Your task to perform on an android device: set default search engine in the chrome app Image 0: 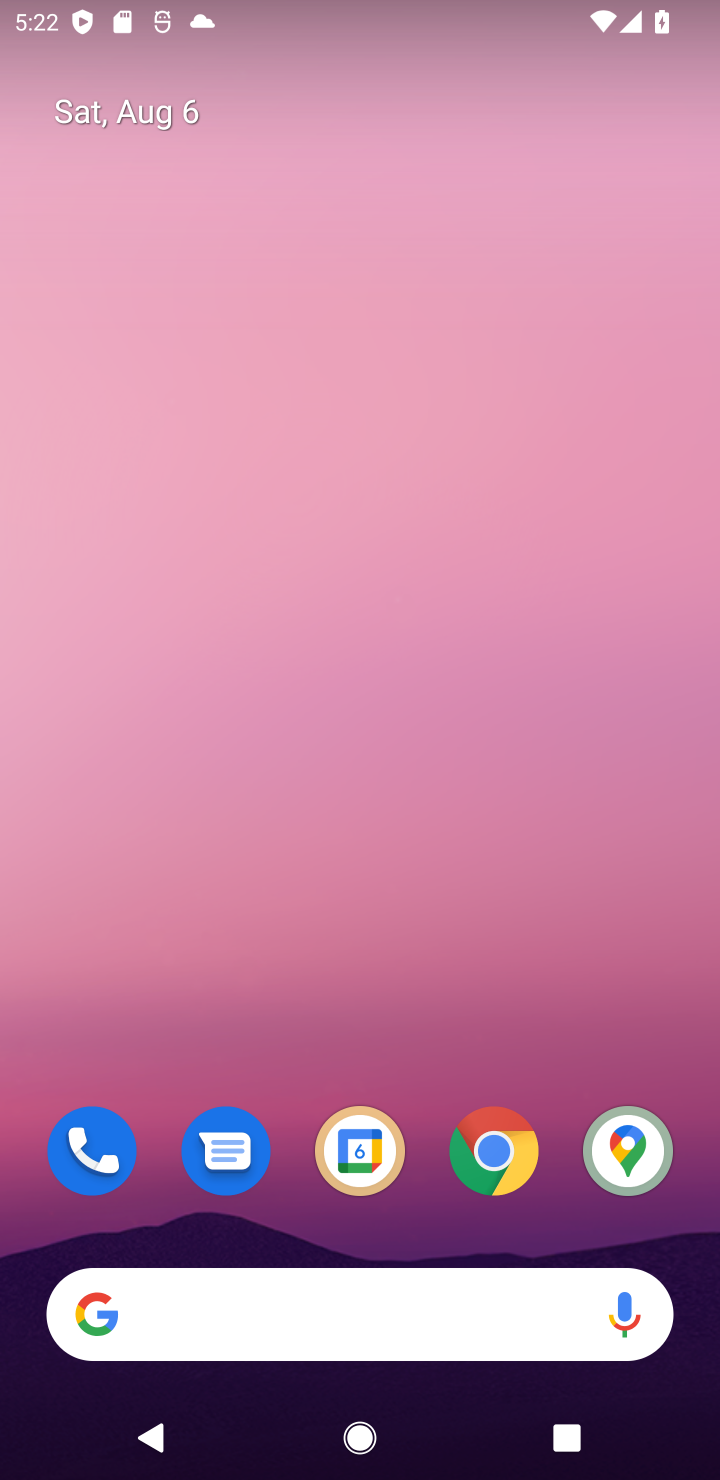
Step 0: click (484, 1167)
Your task to perform on an android device: set default search engine in the chrome app Image 1: 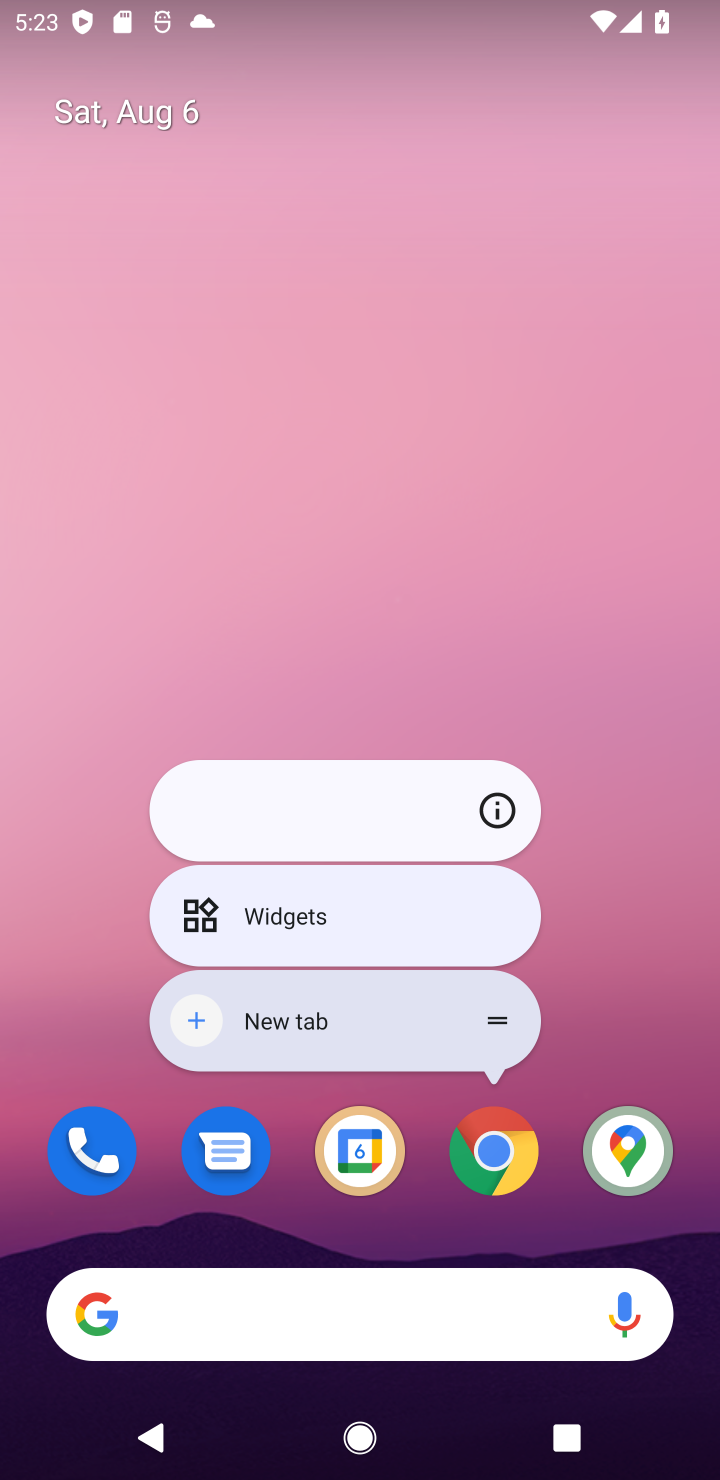
Step 1: click (511, 1150)
Your task to perform on an android device: set default search engine in the chrome app Image 2: 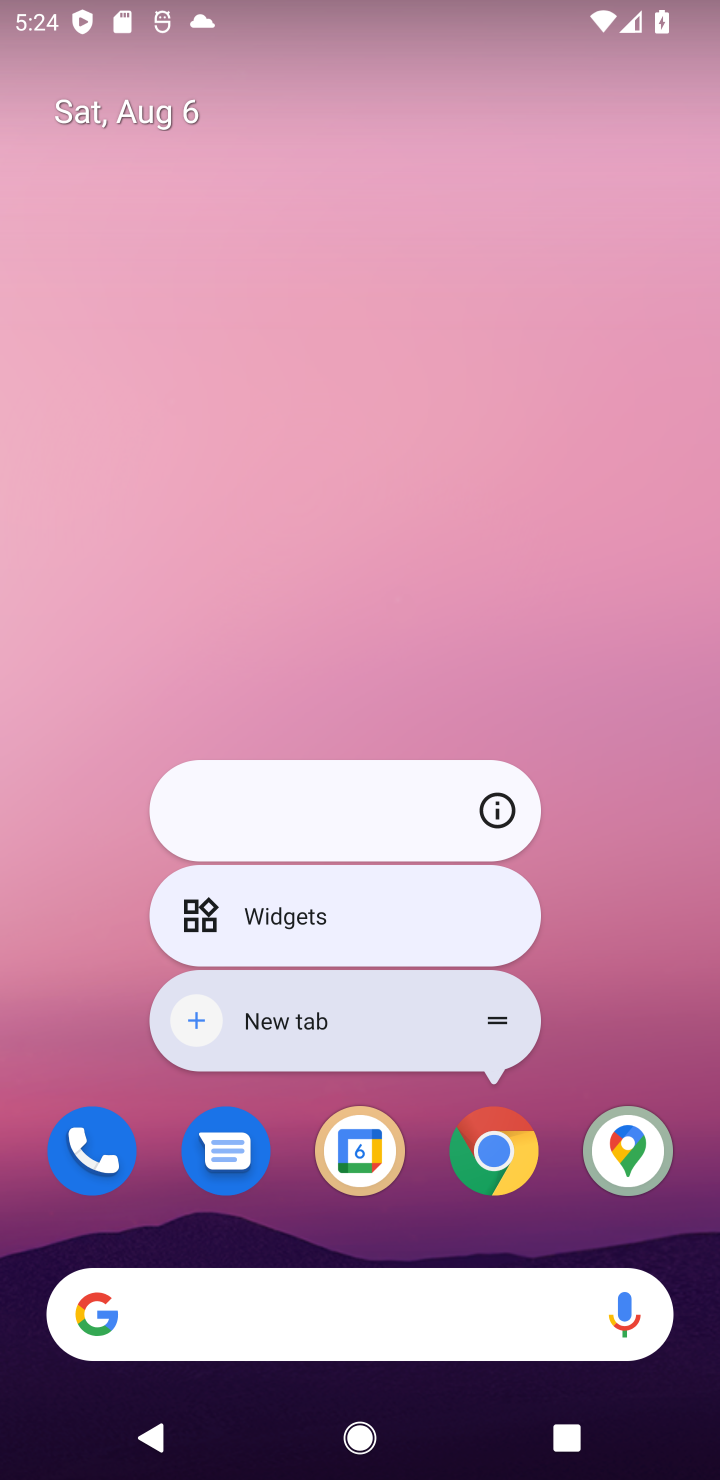
Step 2: click (471, 1151)
Your task to perform on an android device: set default search engine in the chrome app Image 3: 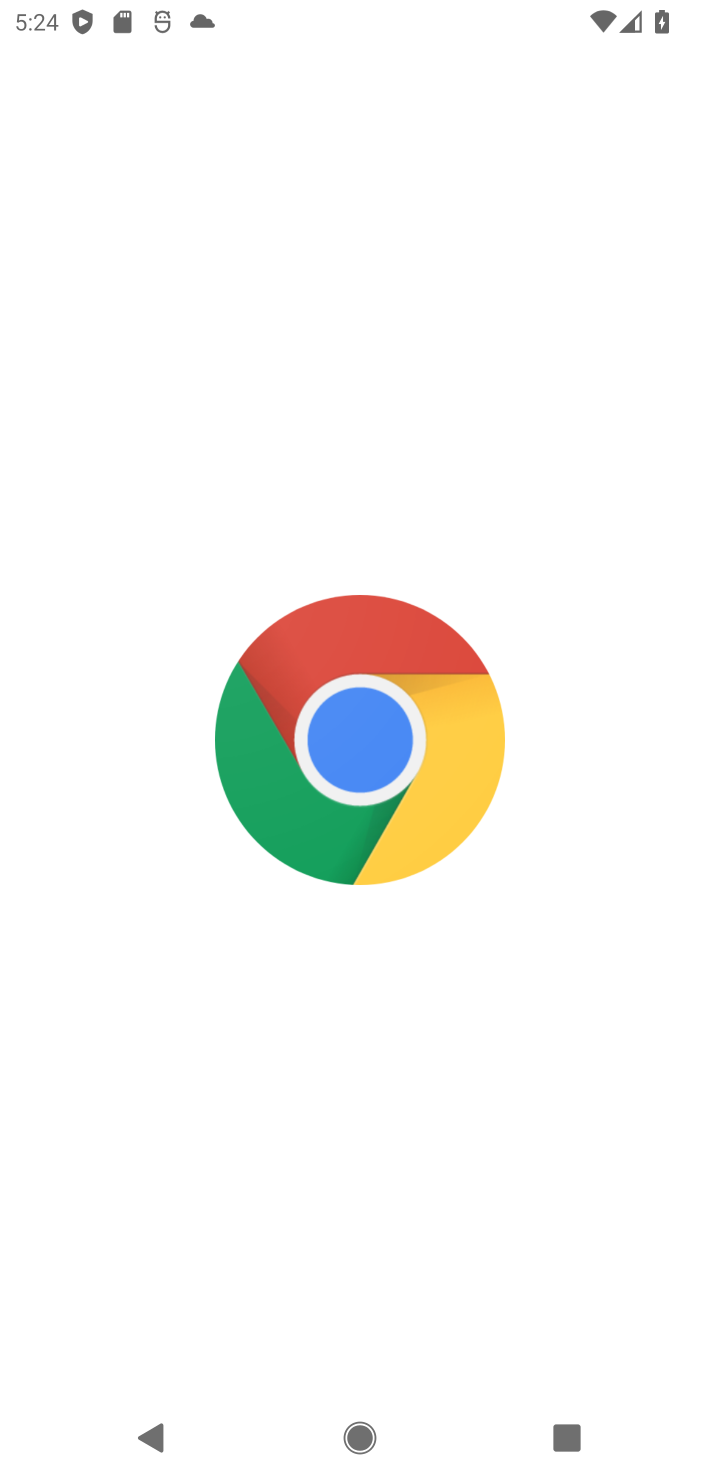
Step 3: click (503, 1188)
Your task to perform on an android device: set default search engine in the chrome app Image 4: 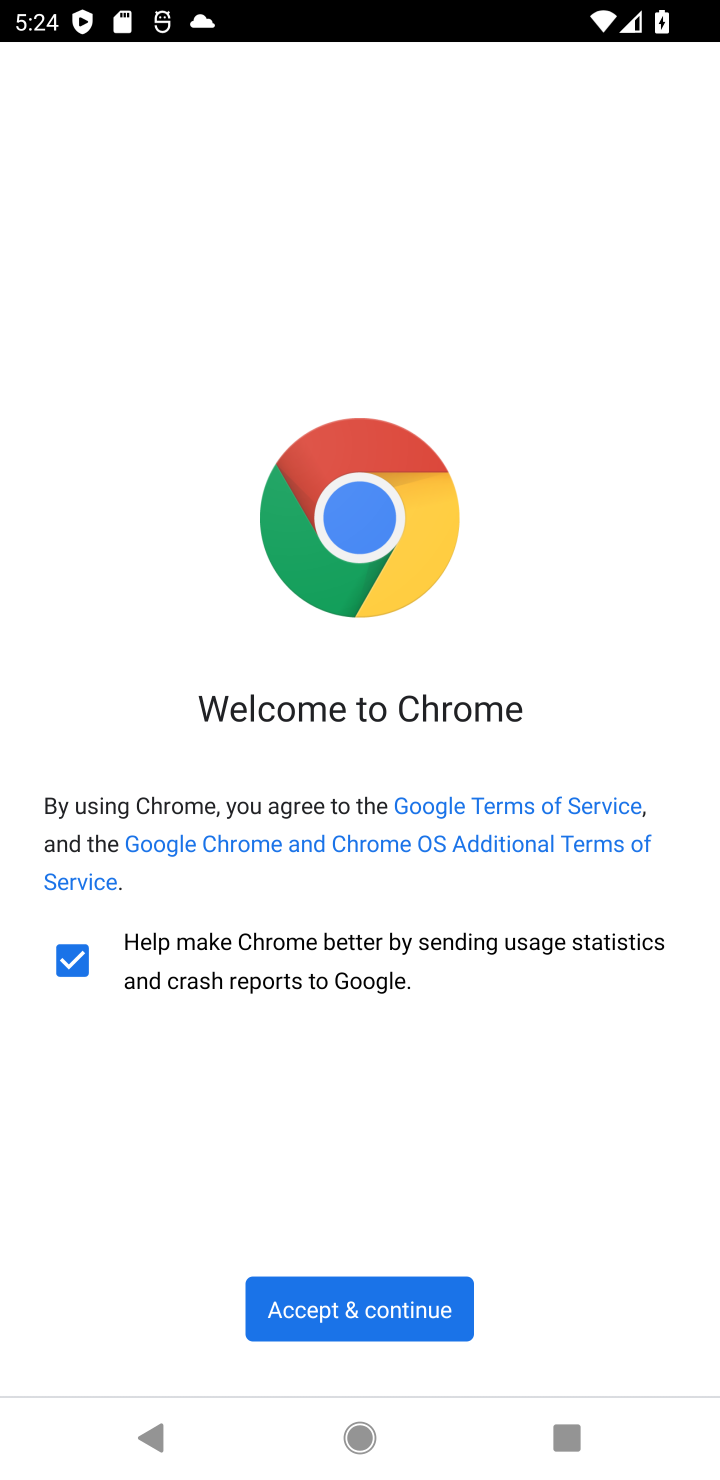
Step 4: click (395, 1308)
Your task to perform on an android device: set default search engine in the chrome app Image 5: 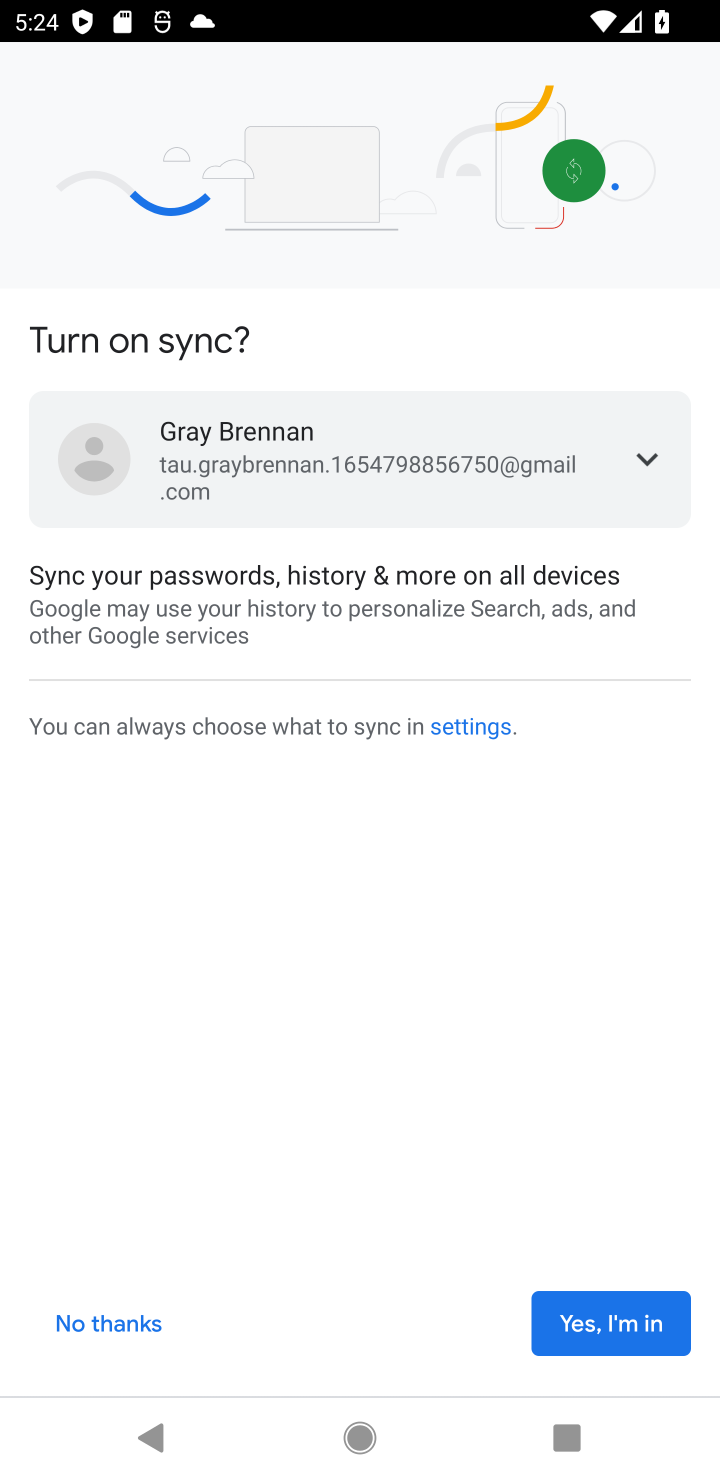
Step 5: click (563, 1332)
Your task to perform on an android device: set default search engine in the chrome app Image 6: 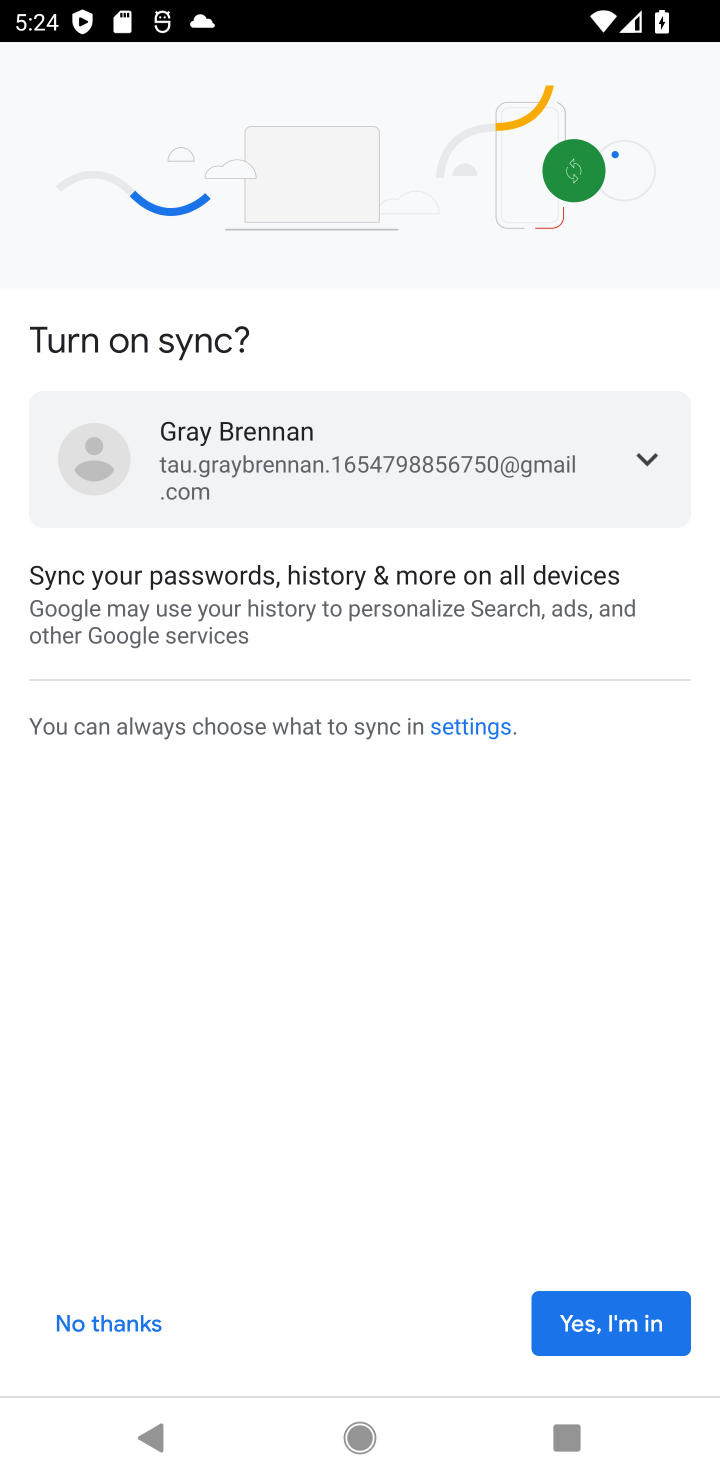
Step 6: click (637, 1339)
Your task to perform on an android device: set default search engine in the chrome app Image 7: 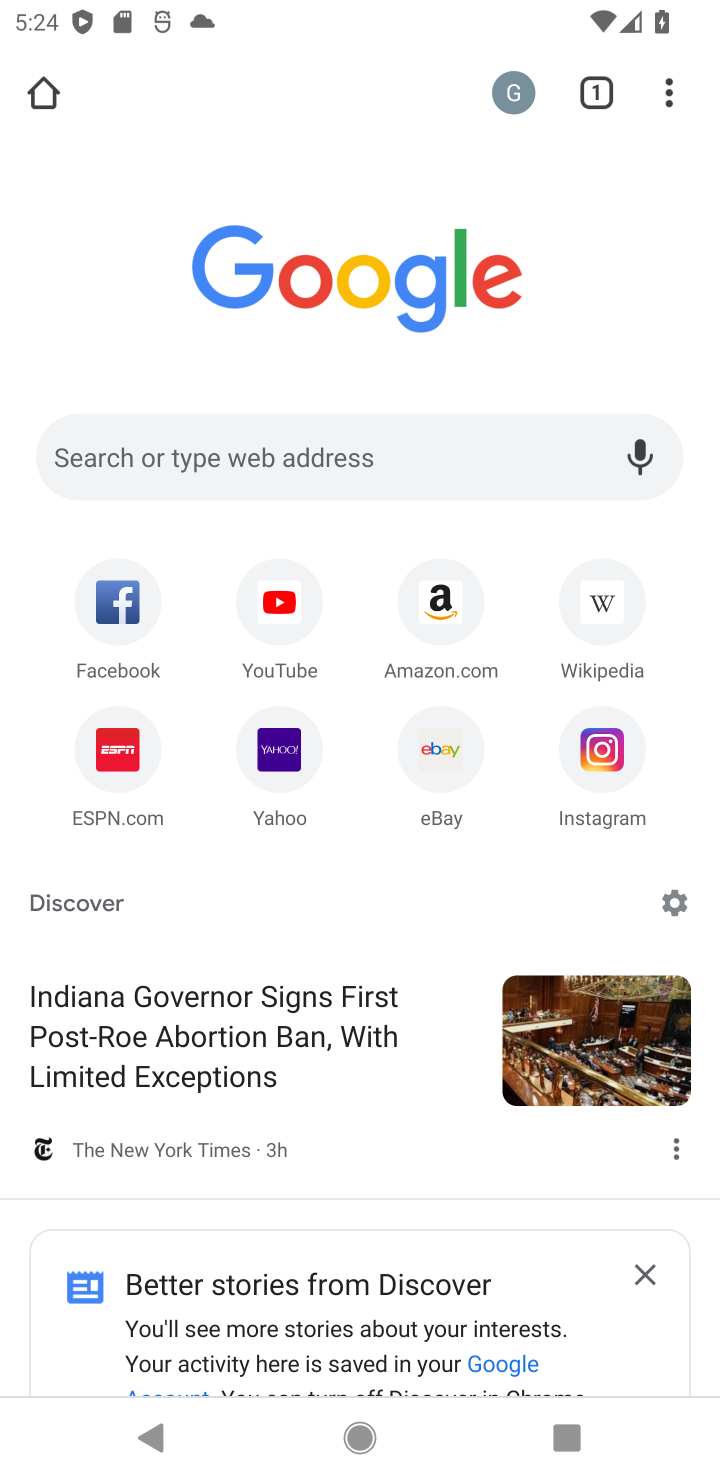
Step 7: click (658, 90)
Your task to perform on an android device: set default search engine in the chrome app Image 8: 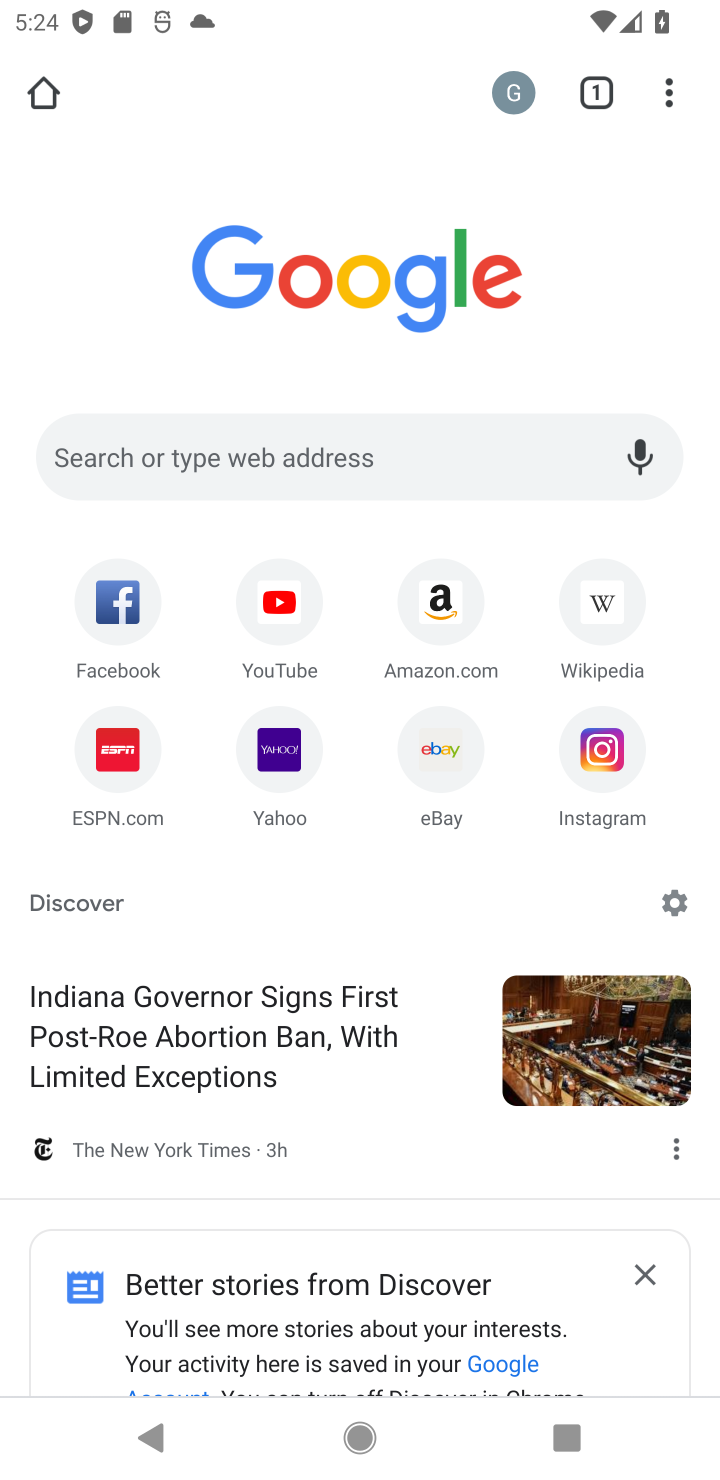
Step 8: click (686, 82)
Your task to perform on an android device: set default search engine in the chrome app Image 9: 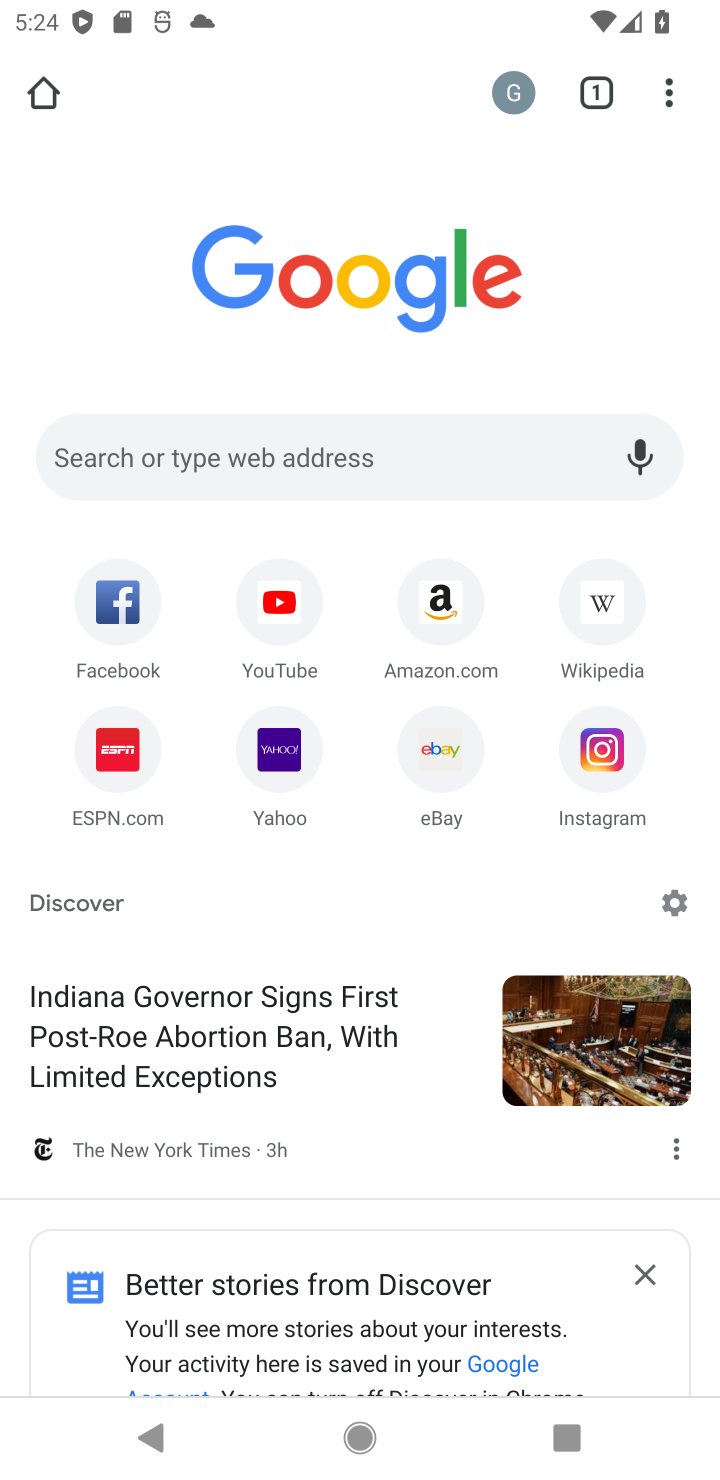
Step 9: click (661, 94)
Your task to perform on an android device: set default search engine in the chrome app Image 10: 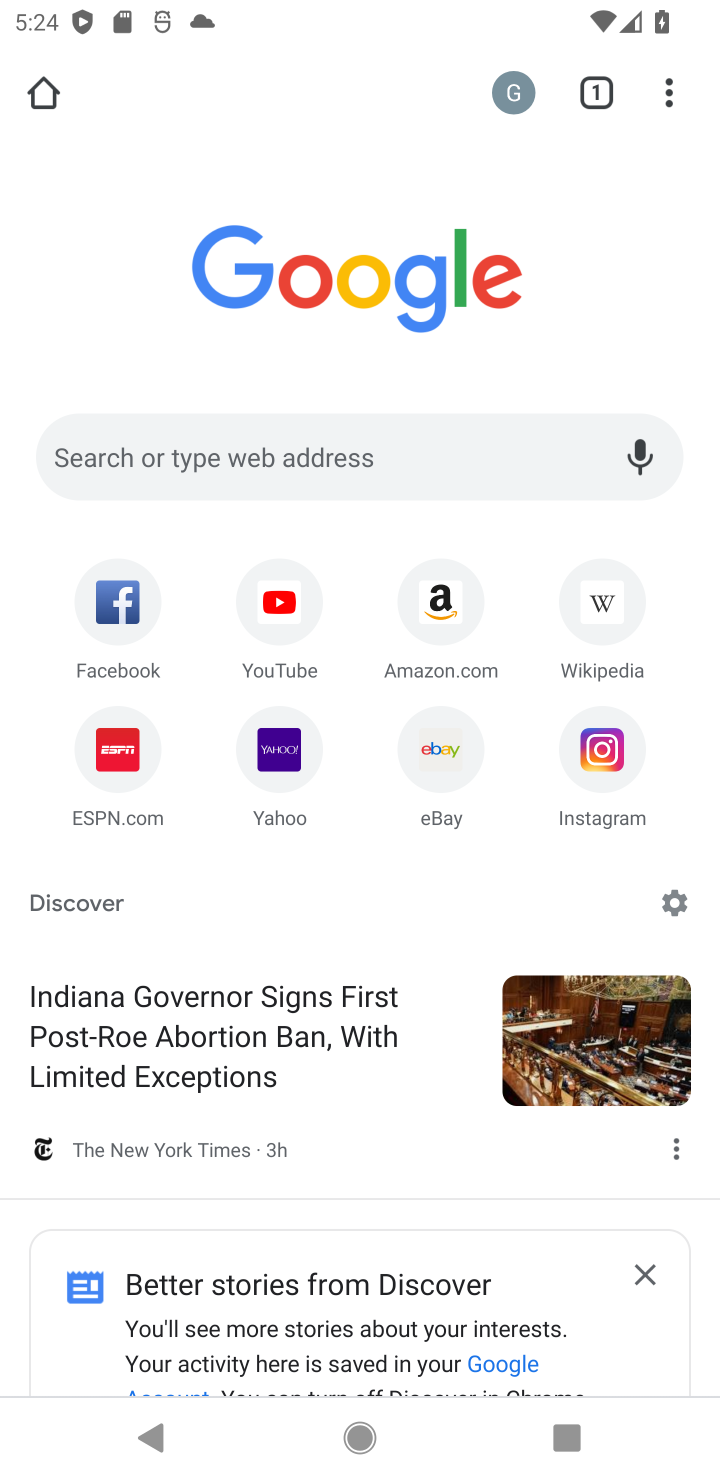
Step 10: click (661, 94)
Your task to perform on an android device: set default search engine in the chrome app Image 11: 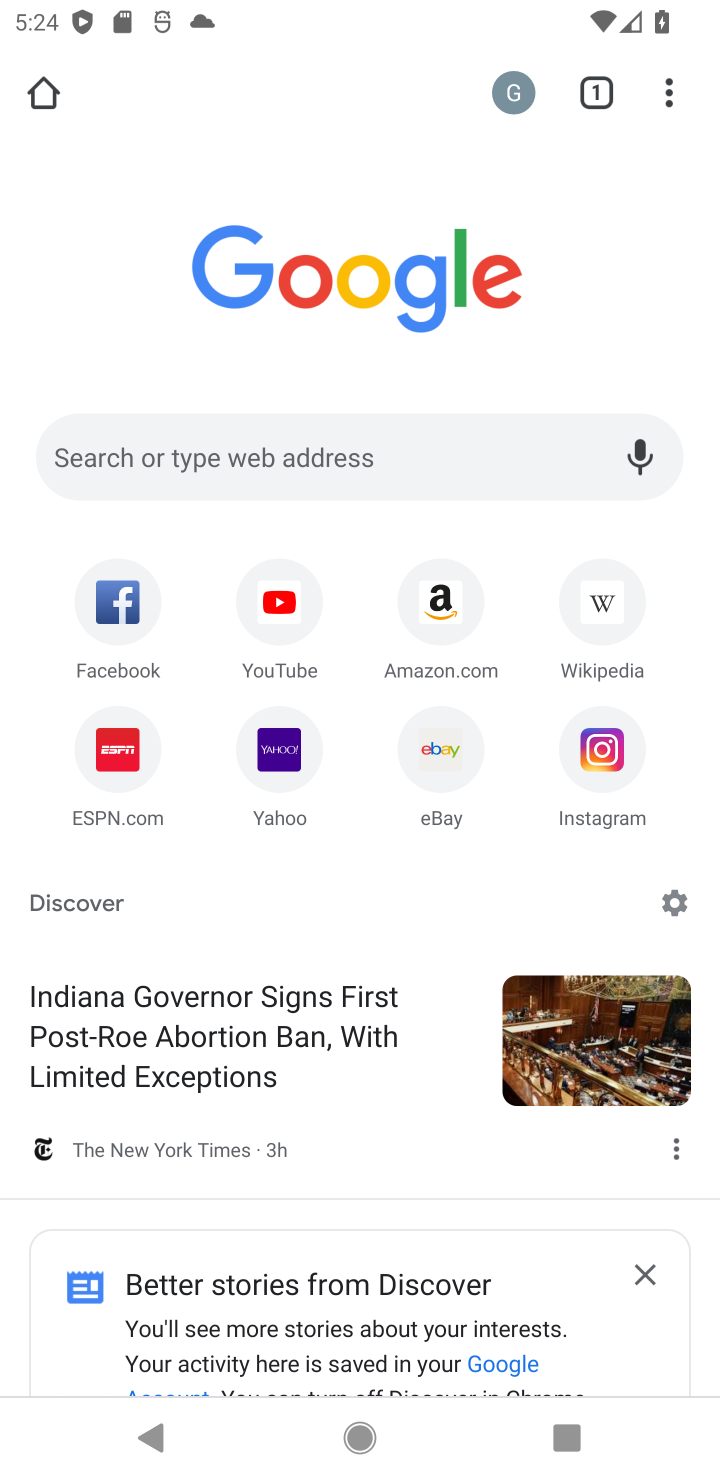
Step 11: click (671, 96)
Your task to perform on an android device: set default search engine in the chrome app Image 12: 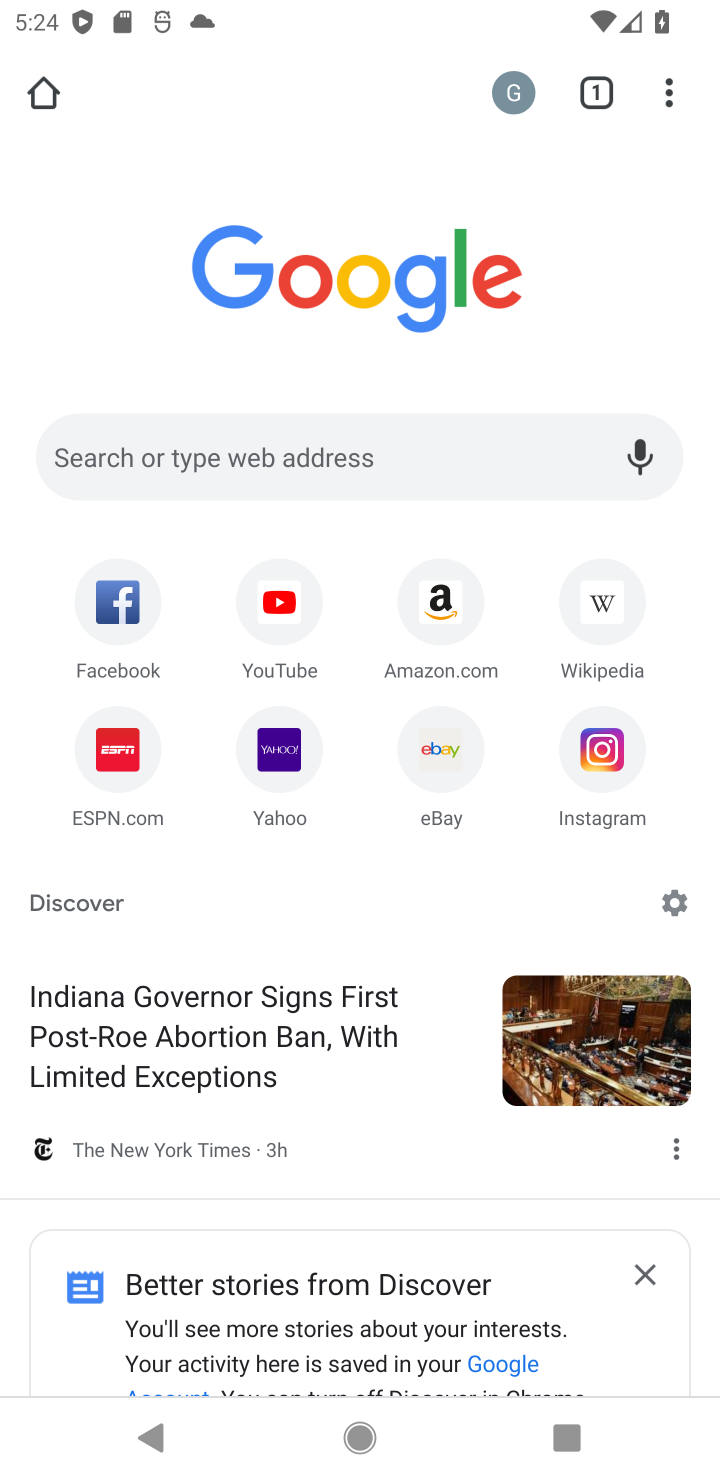
Step 12: click (666, 77)
Your task to perform on an android device: set default search engine in the chrome app Image 13: 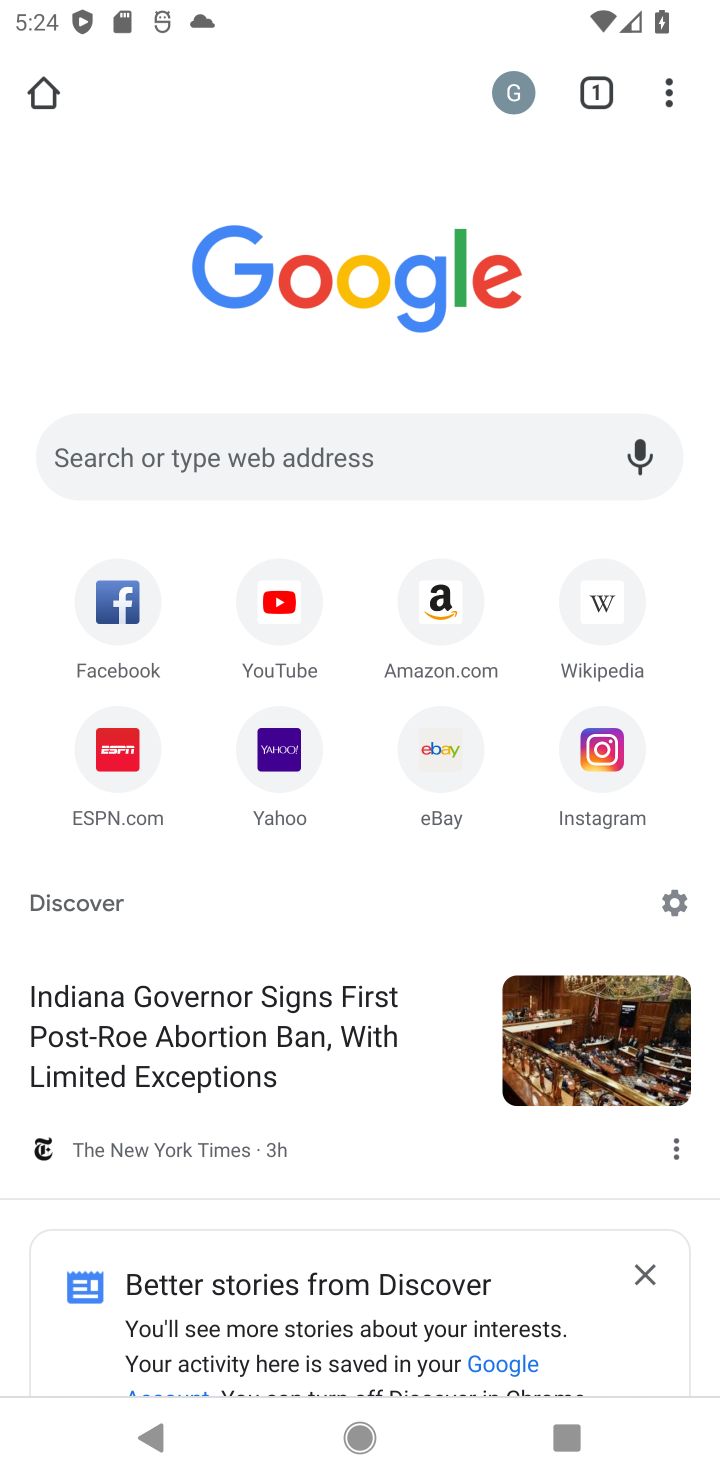
Step 13: click (664, 78)
Your task to perform on an android device: set default search engine in the chrome app Image 14: 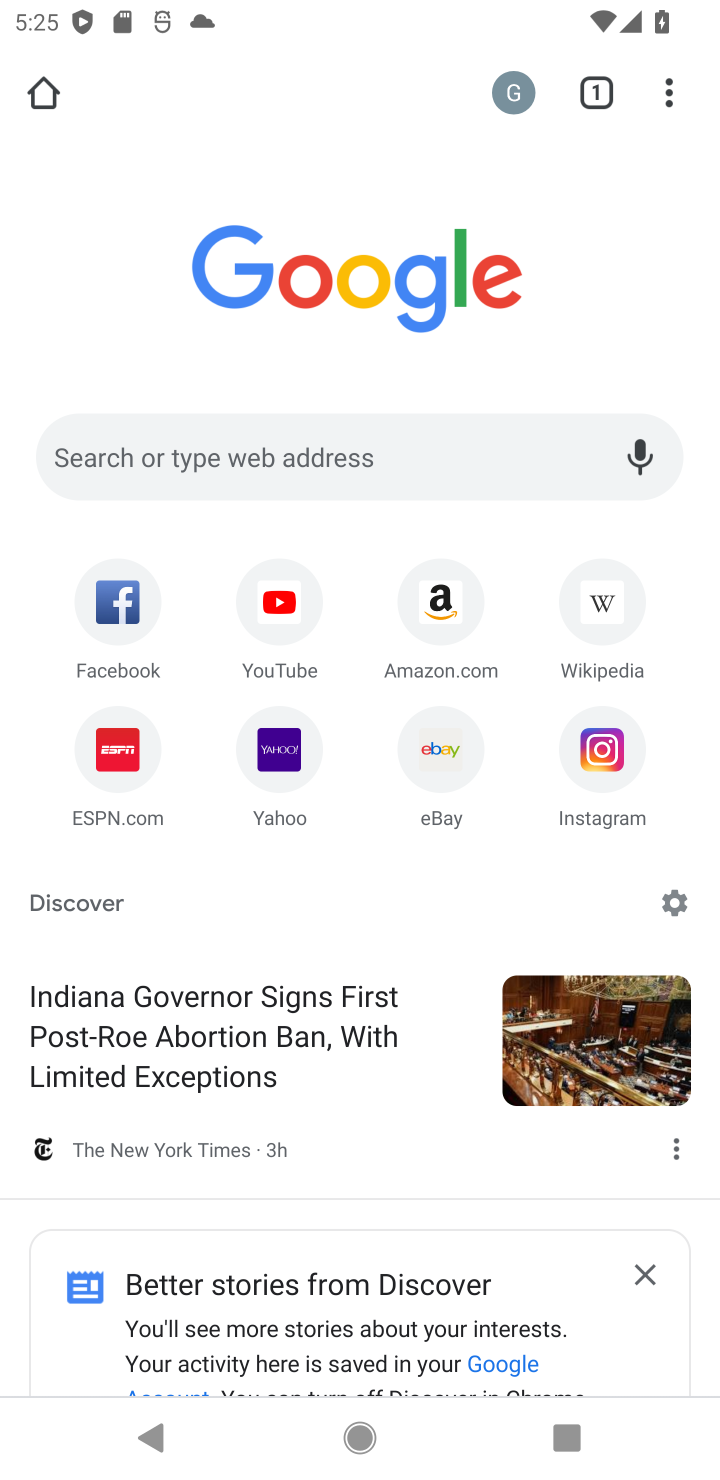
Step 14: click (665, 81)
Your task to perform on an android device: set default search engine in the chrome app Image 15: 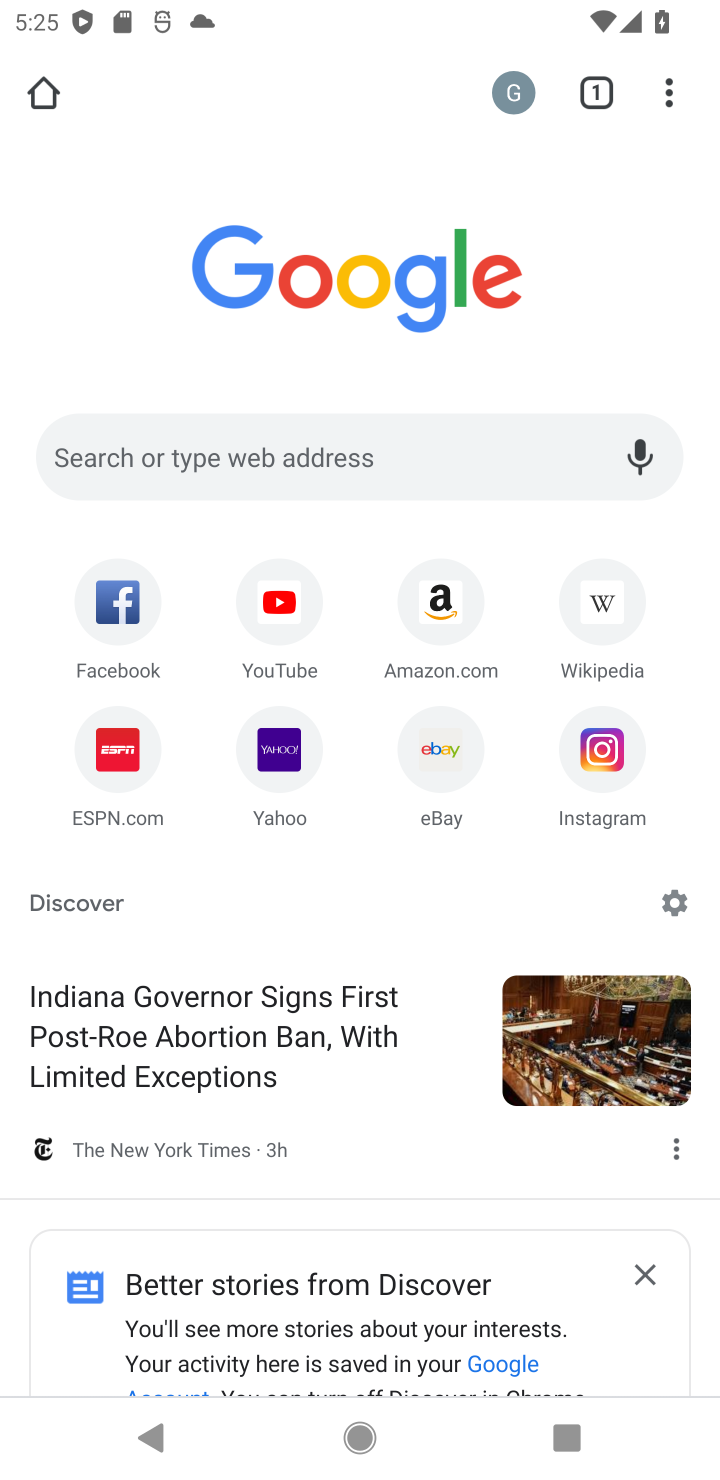
Step 15: click (662, 90)
Your task to perform on an android device: set default search engine in the chrome app Image 16: 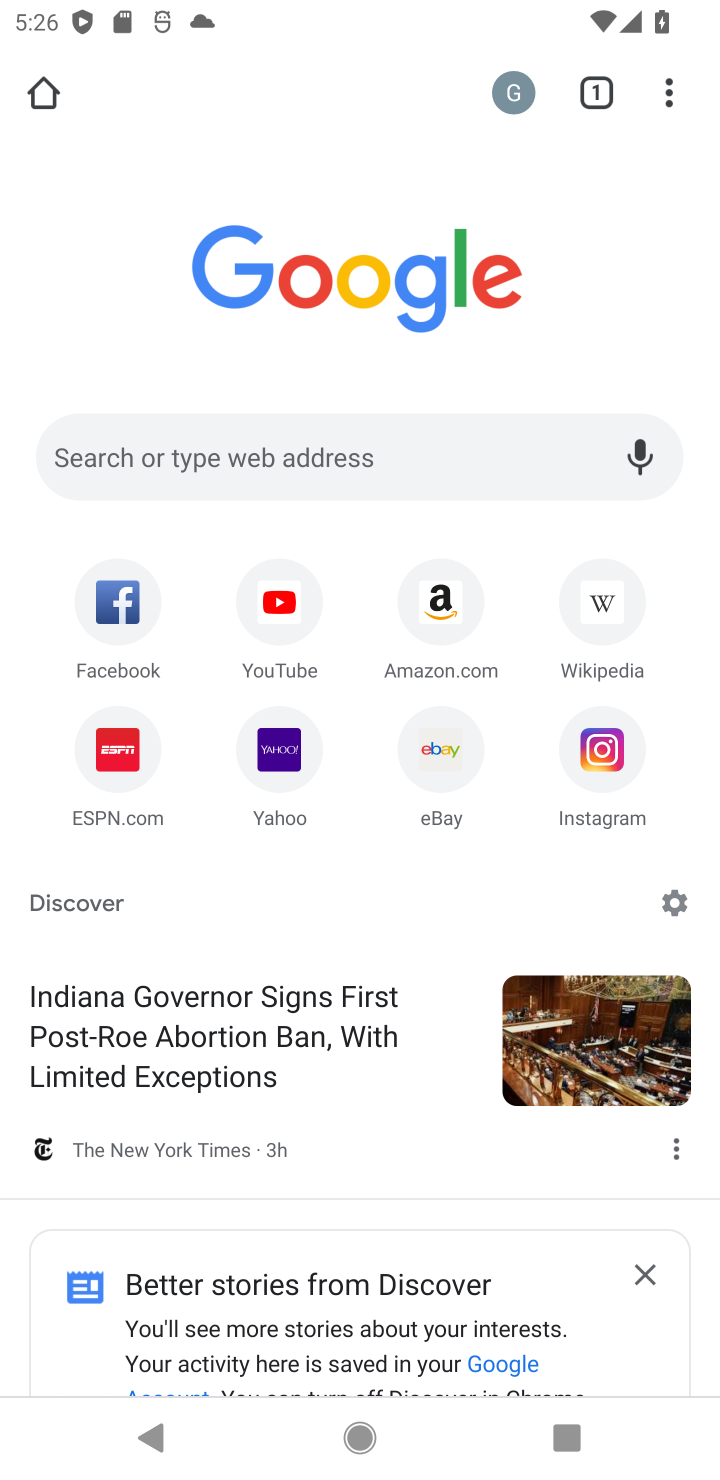
Step 16: click (686, 66)
Your task to perform on an android device: set default search engine in the chrome app Image 17: 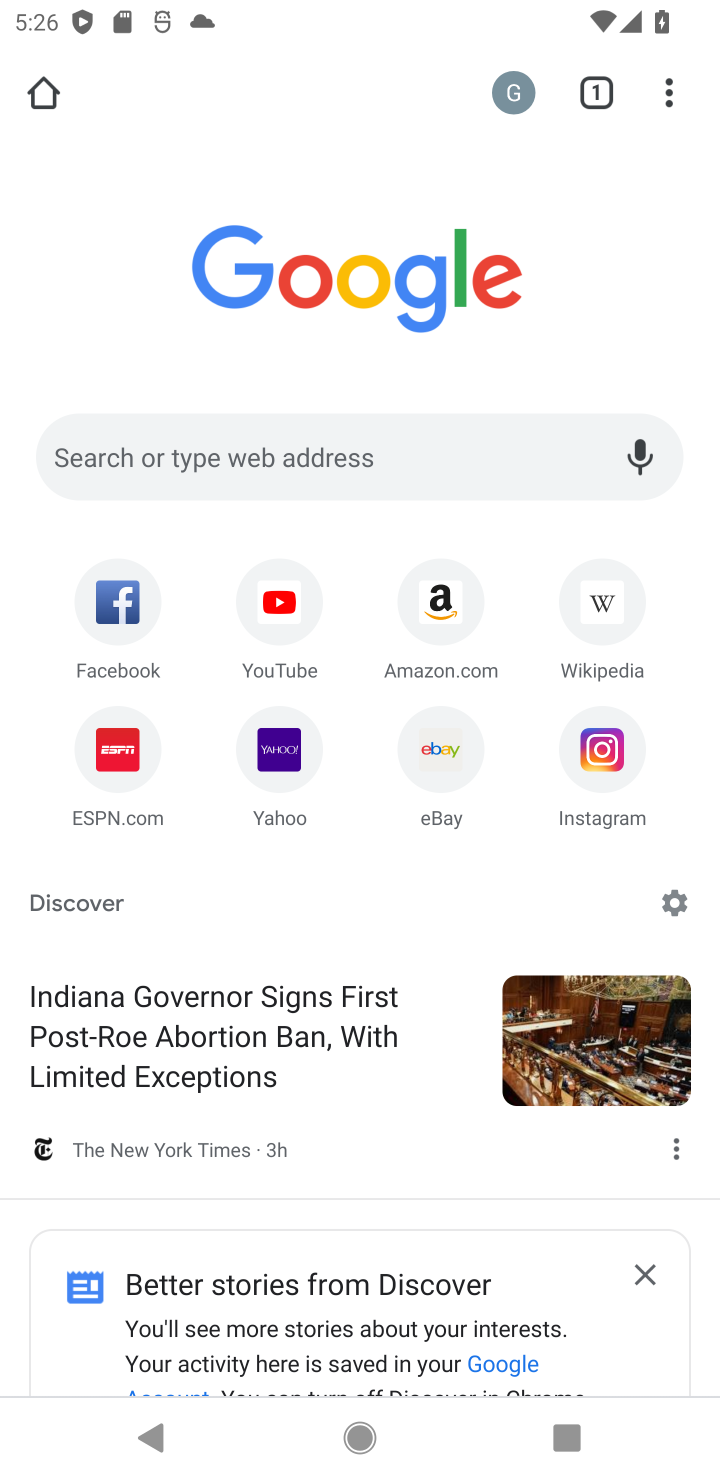
Step 17: click (674, 69)
Your task to perform on an android device: set default search engine in the chrome app Image 18: 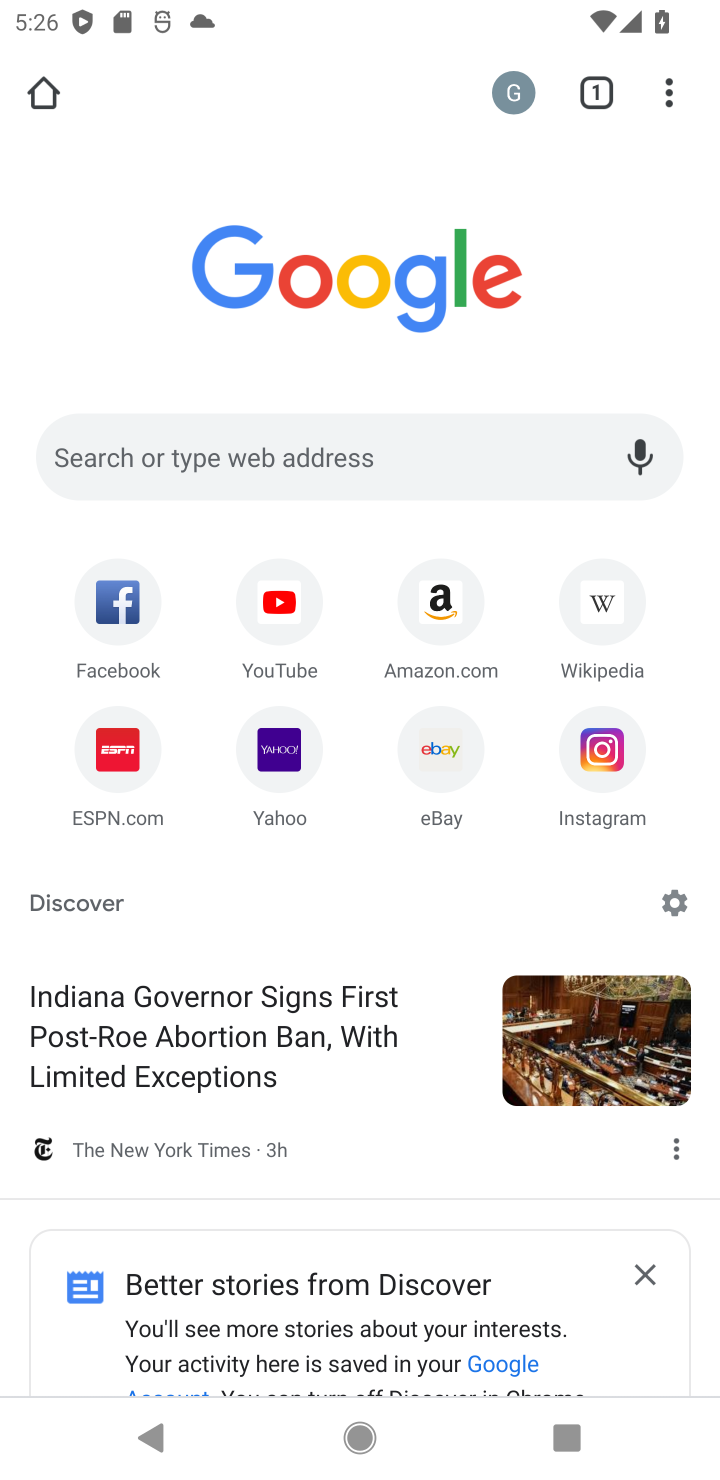
Step 18: click (674, 69)
Your task to perform on an android device: set default search engine in the chrome app Image 19: 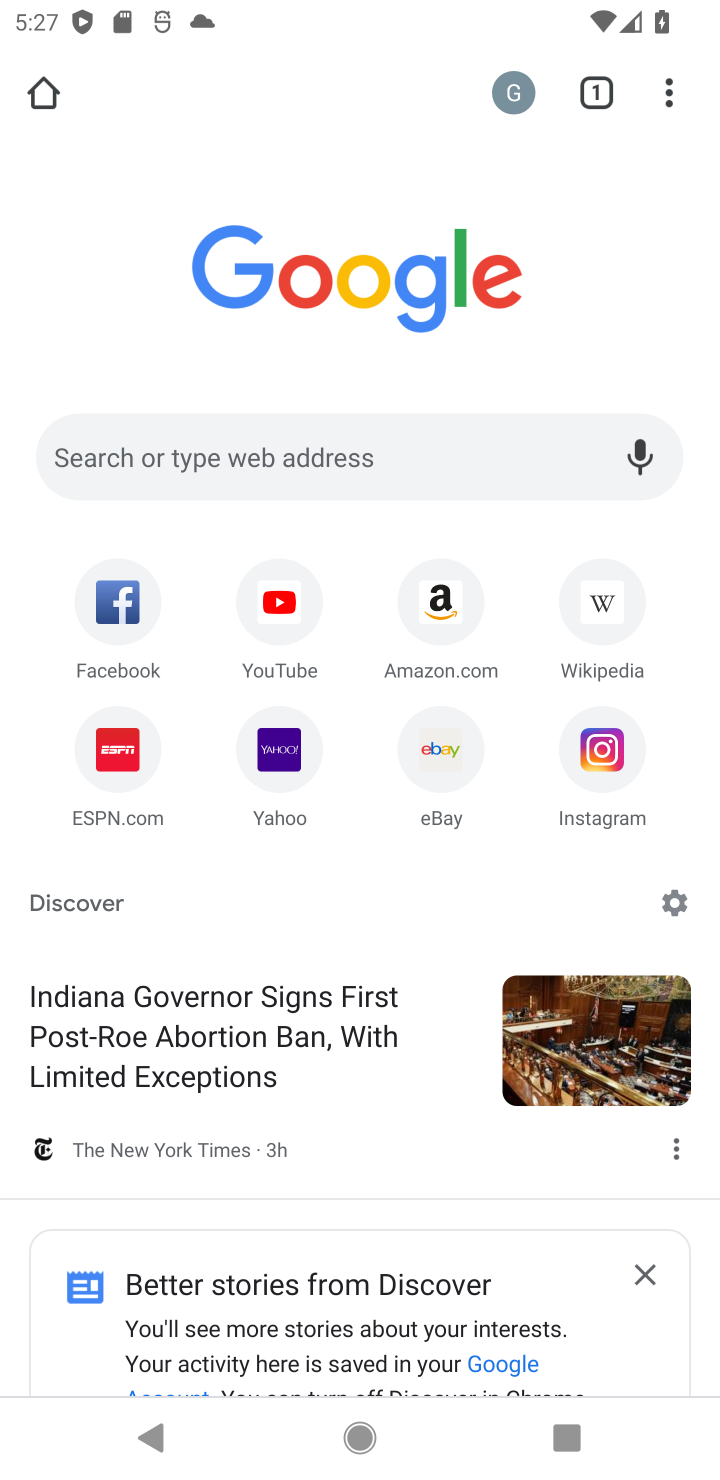
Step 19: click (676, 73)
Your task to perform on an android device: set default search engine in the chrome app Image 20: 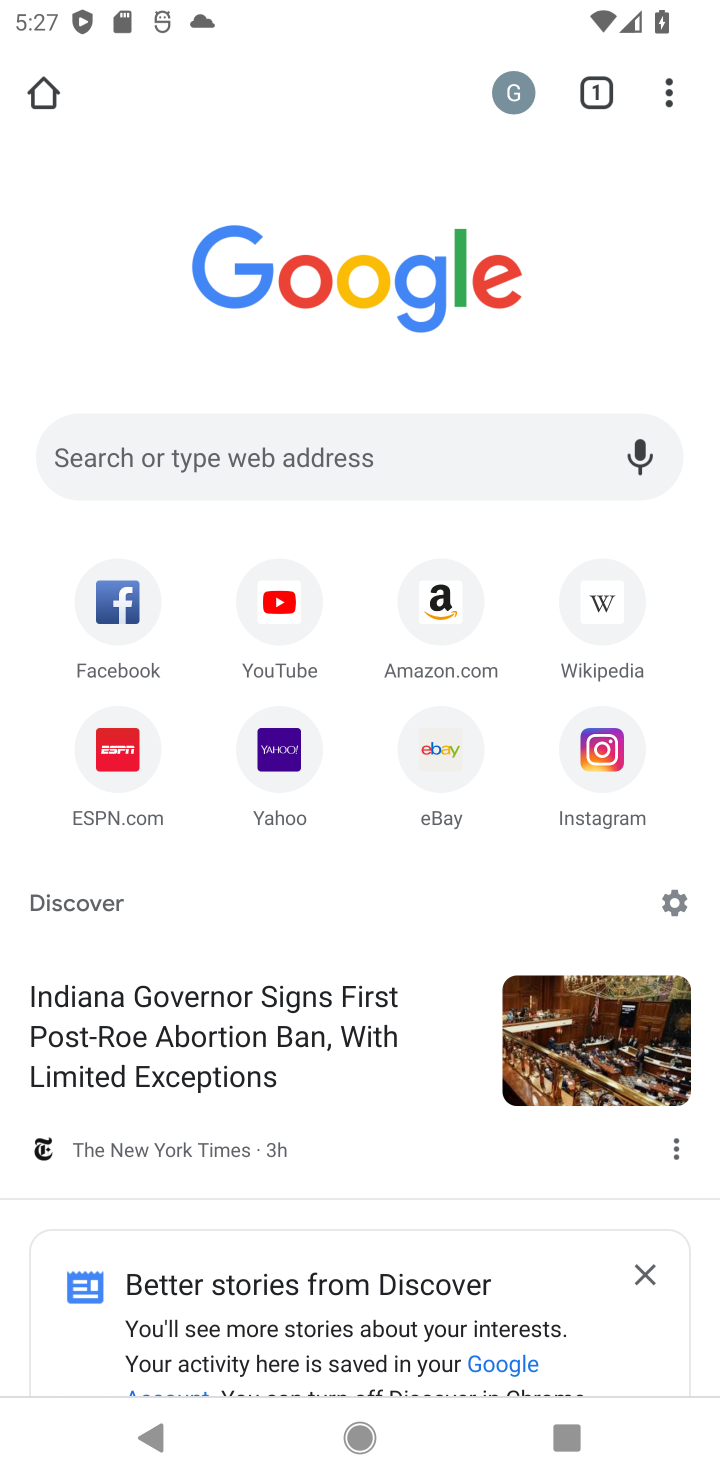
Step 20: click (665, 87)
Your task to perform on an android device: set default search engine in the chrome app Image 21: 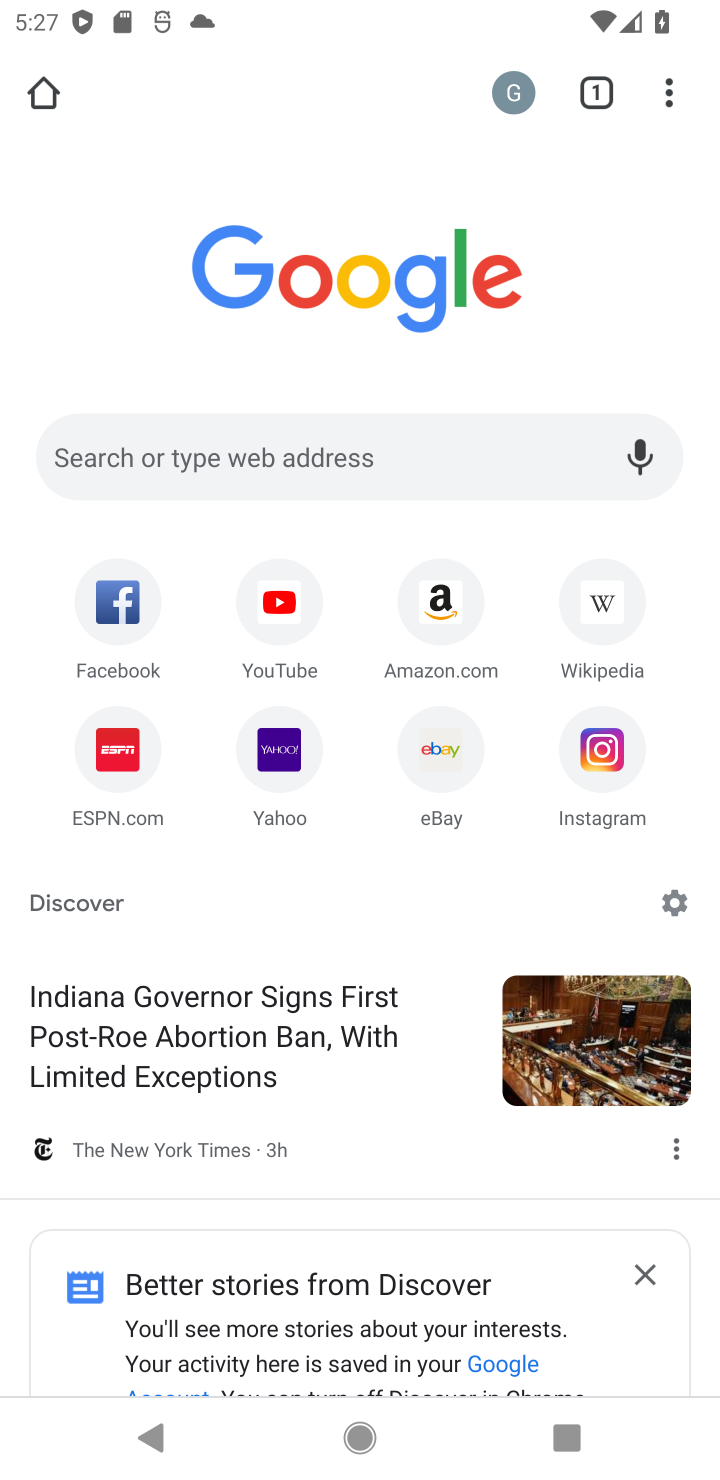
Step 21: click (665, 87)
Your task to perform on an android device: set default search engine in the chrome app Image 22: 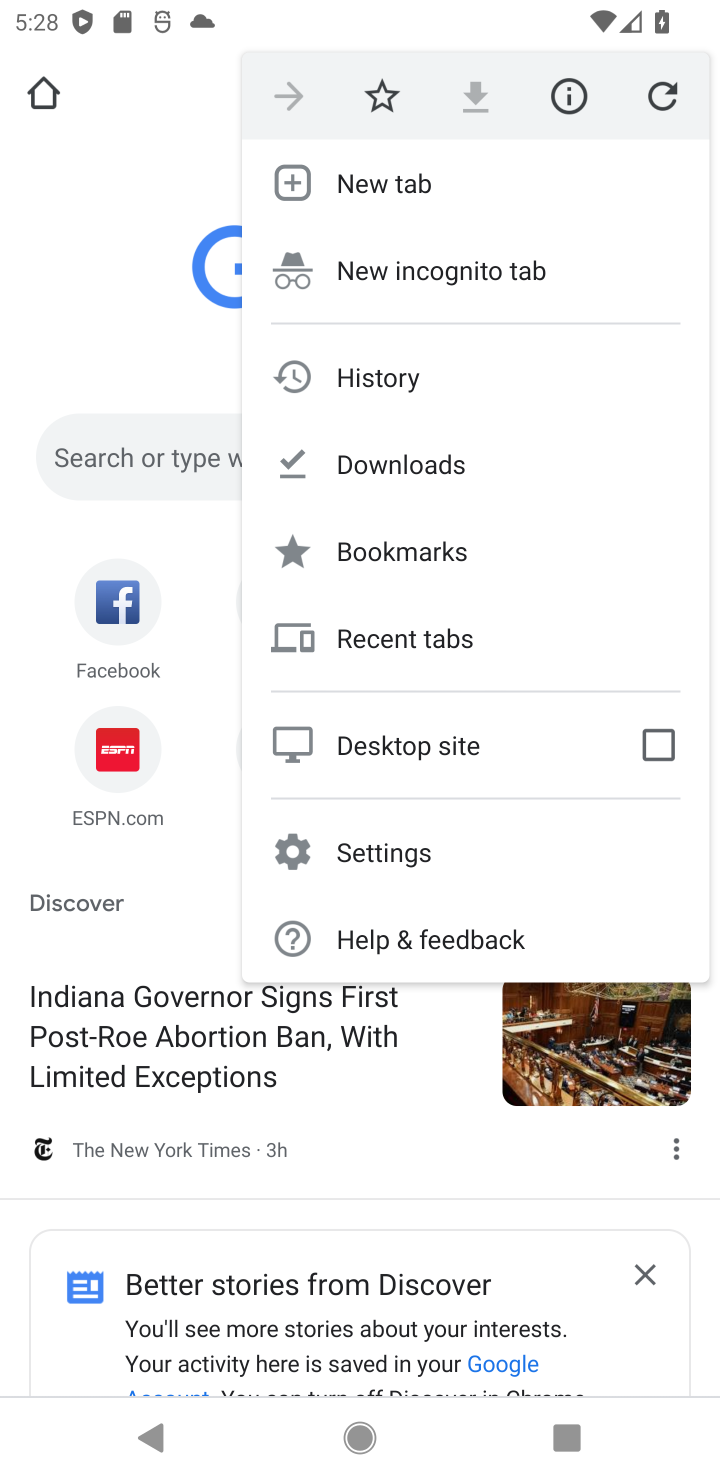
Step 22: click (386, 848)
Your task to perform on an android device: set default search engine in the chrome app Image 23: 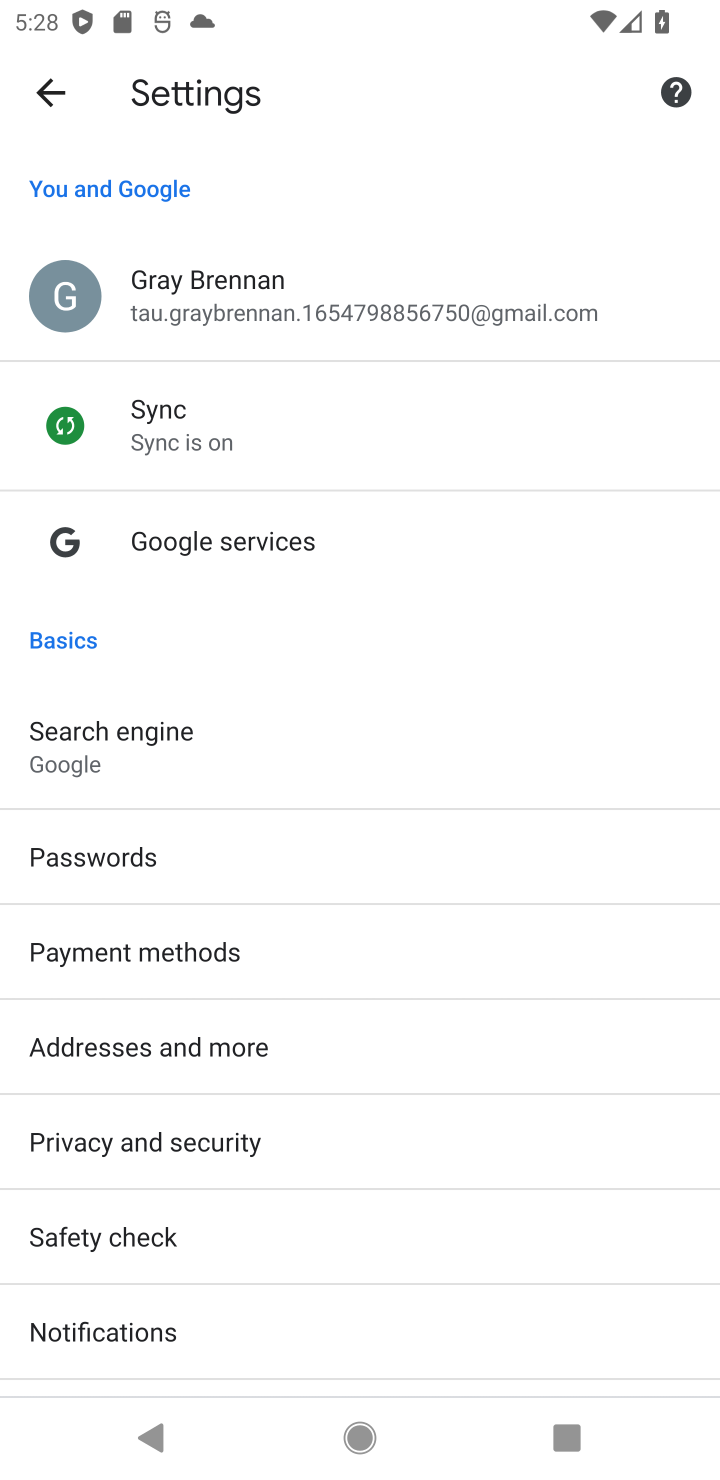
Step 23: click (179, 770)
Your task to perform on an android device: set default search engine in the chrome app Image 24: 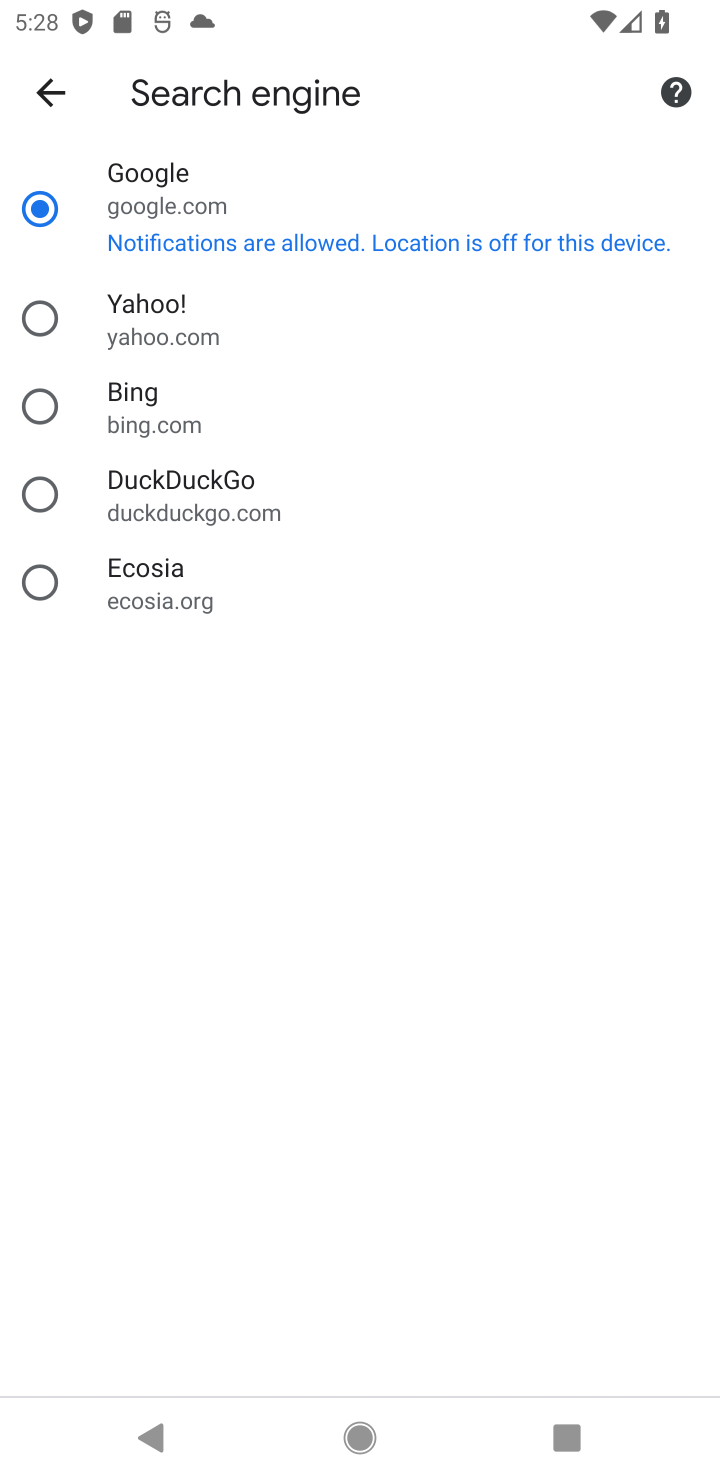
Step 24: task complete